Your task to perform on an android device: Open the stopwatch Image 0: 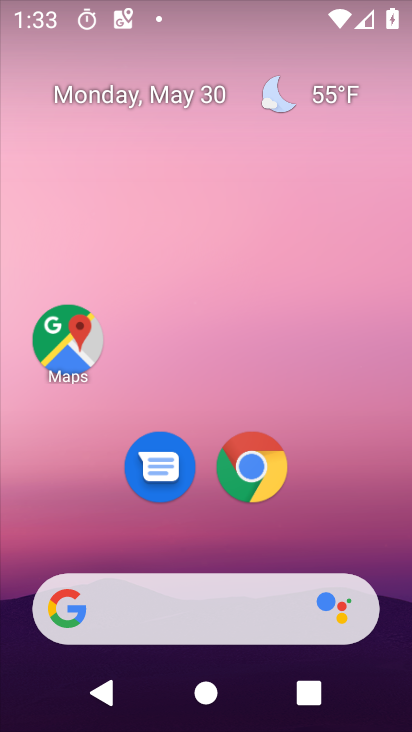
Step 0: drag from (384, 582) to (313, 189)
Your task to perform on an android device: Open the stopwatch Image 1: 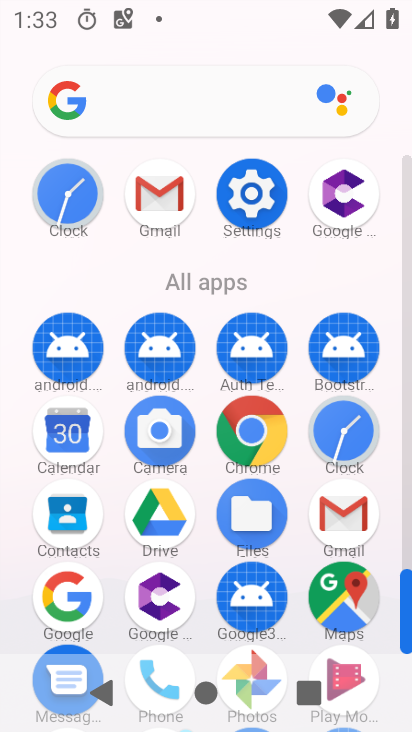
Step 1: click (66, 203)
Your task to perform on an android device: Open the stopwatch Image 2: 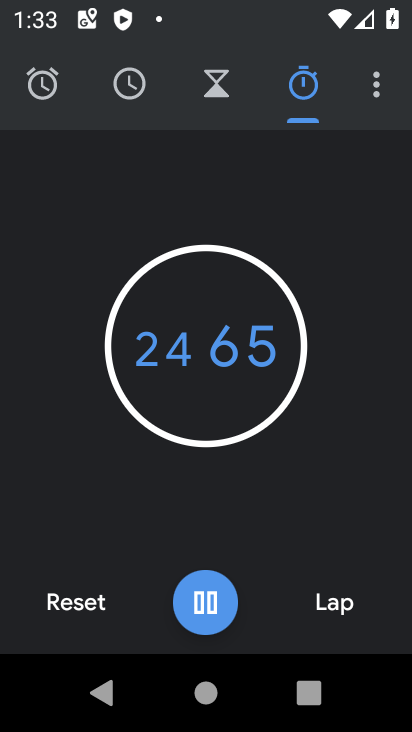
Step 2: click (309, 99)
Your task to perform on an android device: Open the stopwatch Image 3: 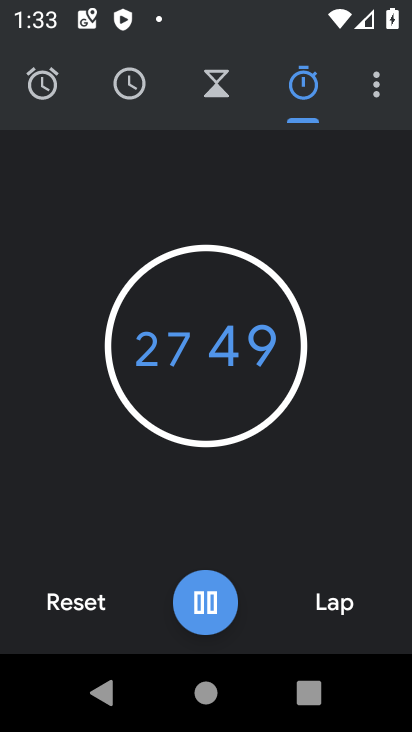
Step 3: task complete